Your task to perform on an android device: find snoozed emails in the gmail app Image 0: 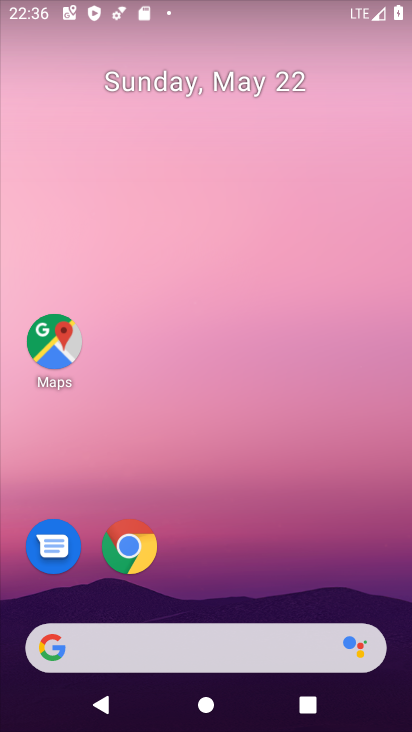
Step 0: click (272, 91)
Your task to perform on an android device: find snoozed emails in the gmail app Image 1: 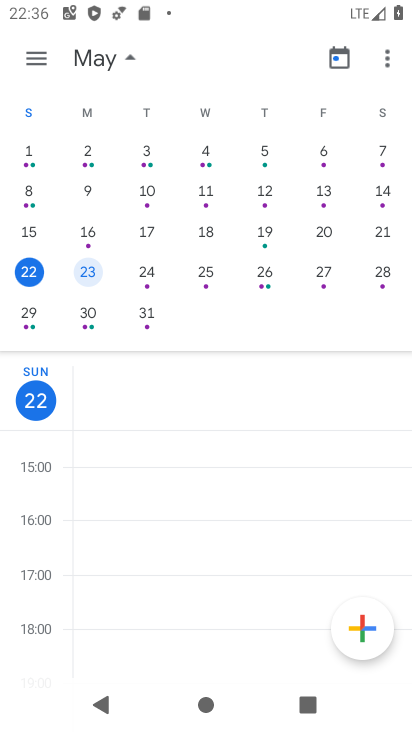
Step 1: drag from (207, 581) to (307, 17)
Your task to perform on an android device: find snoozed emails in the gmail app Image 2: 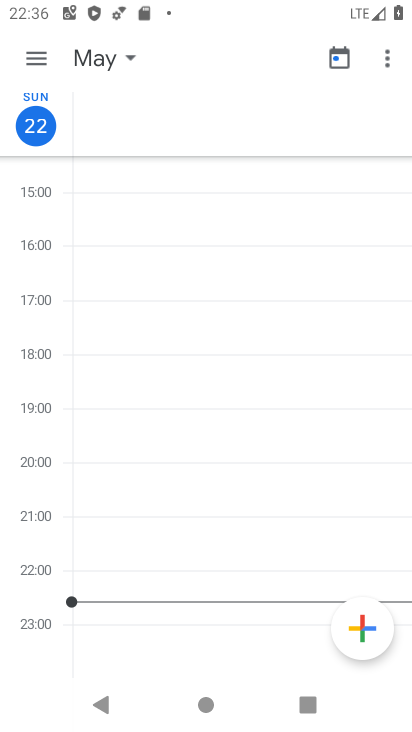
Step 2: press home button
Your task to perform on an android device: find snoozed emails in the gmail app Image 3: 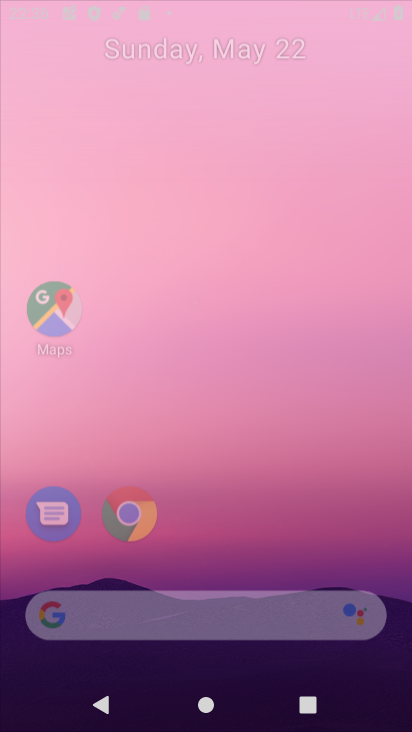
Step 3: drag from (195, 588) to (185, 15)
Your task to perform on an android device: find snoozed emails in the gmail app Image 4: 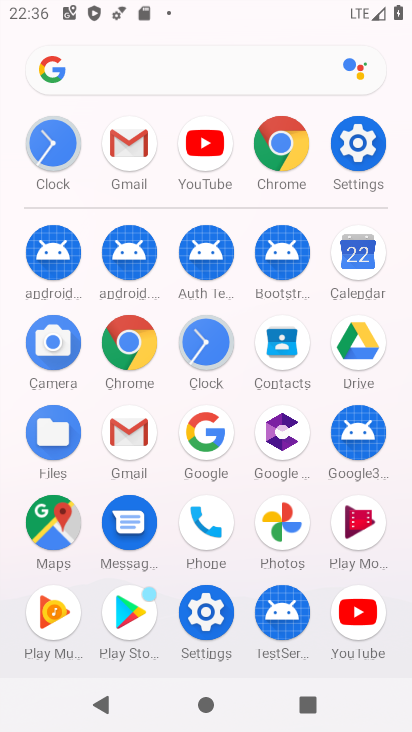
Step 4: click (127, 441)
Your task to perform on an android device: find snoozed emails in the gmail app Image 5: 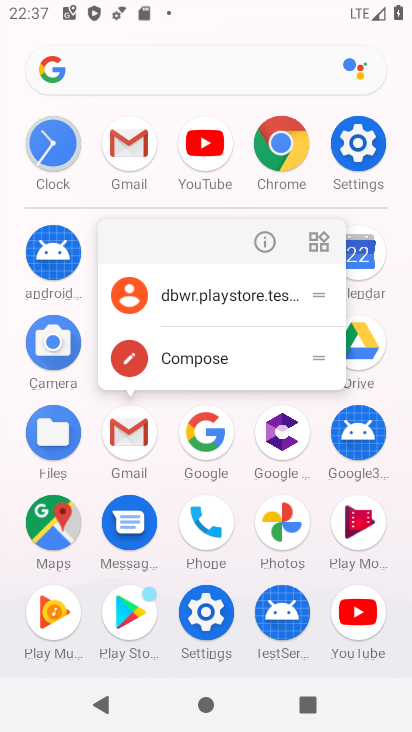
Step 5: click (192, 305)
Your task to perform on an android device: find snoozed emails in the gmail app Image 6: 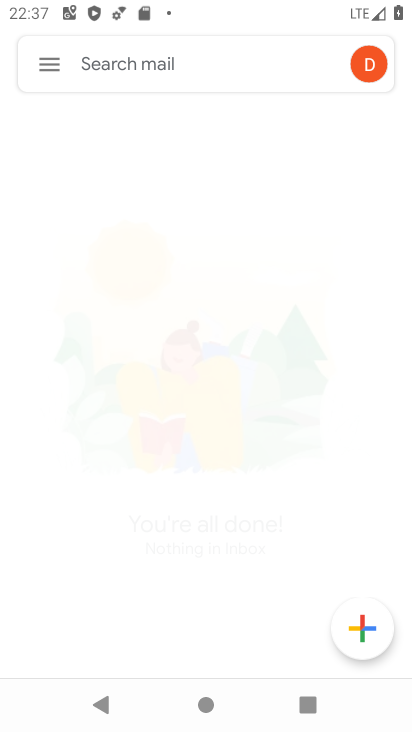
Step 6: click (49, 74)
Your task to perform on an android device: find snoozed emails in the gmail app Image 7: 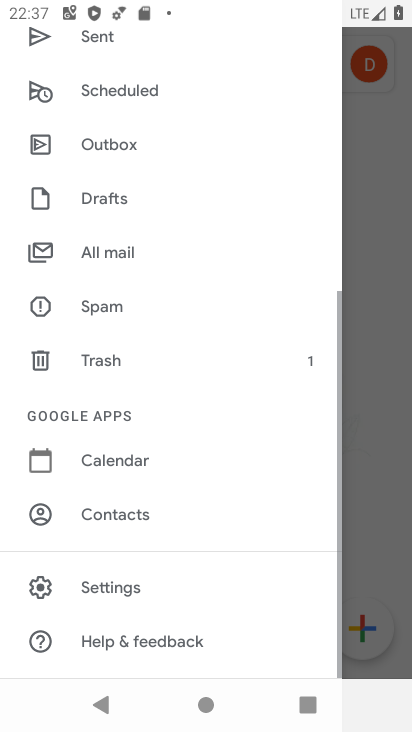
Step 7: drag from (206, 162) to (306, 689)
Your task to perform on an android device: find snoozed emails in the gmail app Image 8: 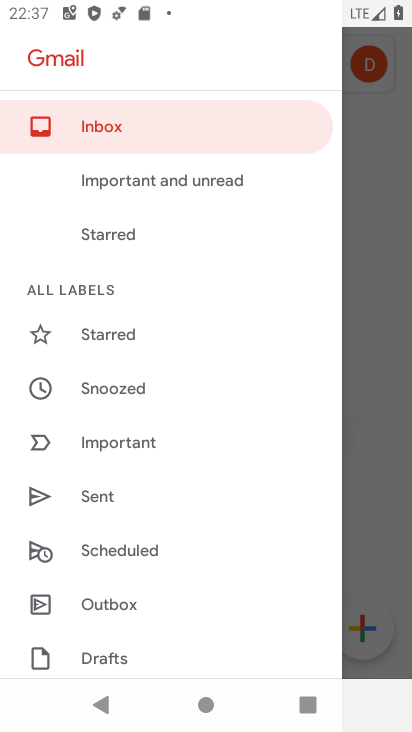
Step 8: click (106, 376)
Your task to perform on an android device: find snoozed emails in the gmail app Image 9: 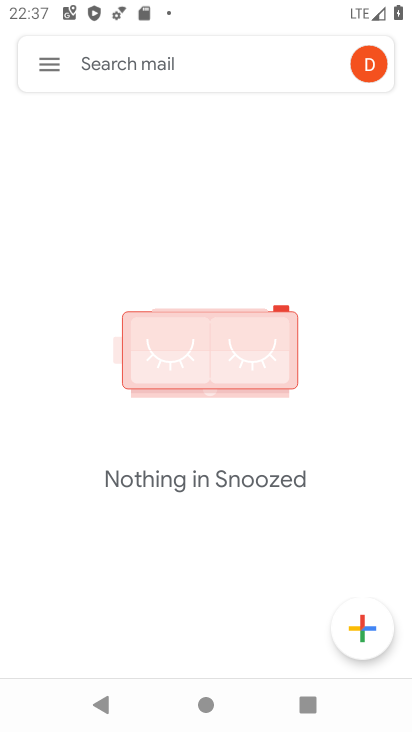
Step 9: task complete